Your task to perform on an android device: Go to wifi settings Image 0: 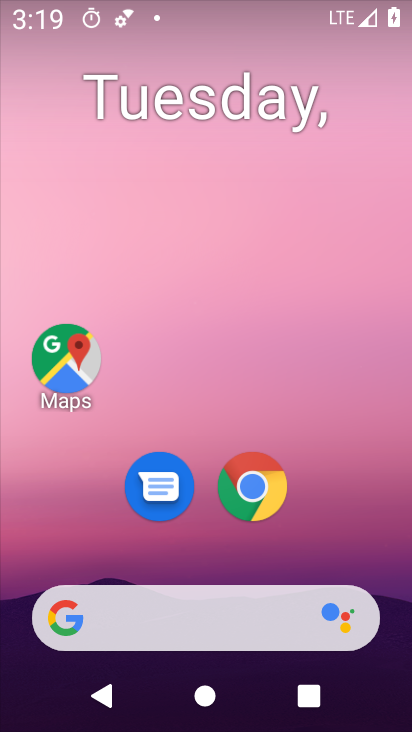
Step 0: press home button
Your task to perform on an android device: Go to wifi settings Image 1: 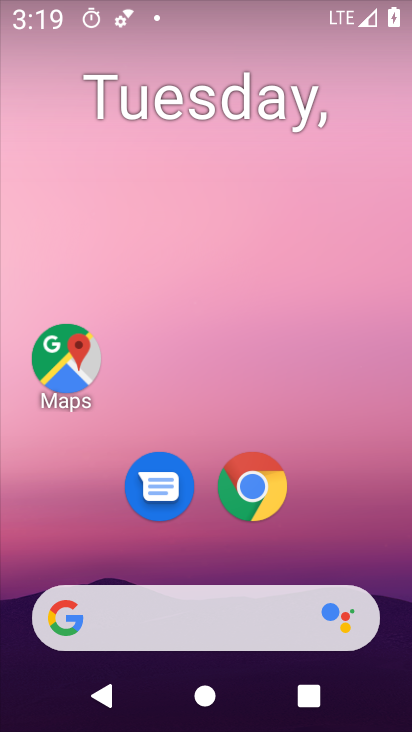
Step 1: drag from (346, 527) to (348, 44)
Your task to perform on an android device: Go to wifi settings Image 2: 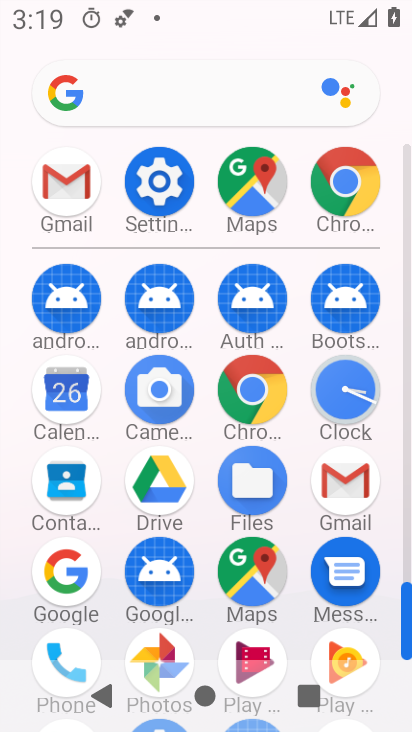
Step 2: click (152, 192)
Your task to perform on an android device: Go to wifi settings Image 3: 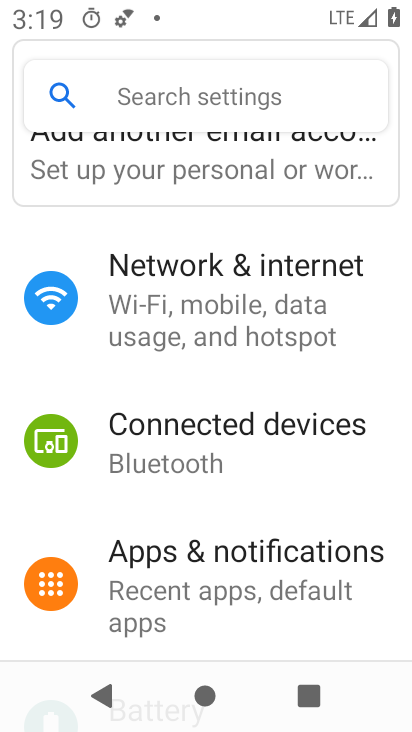
Step 3: drag from (366, 512) to (366, 421)
Your task to perform on an android device: Go to wifi settings Image 4: 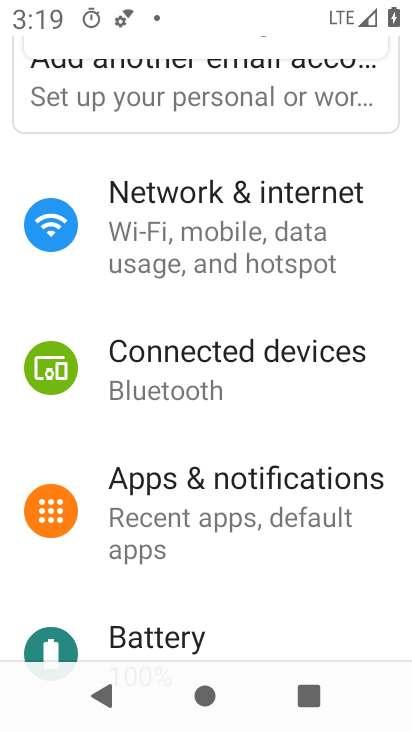
Step 4: drag from (352, 568) to (347, 418)
Your task to perform on an android device: Go to wifi settings Image 5: 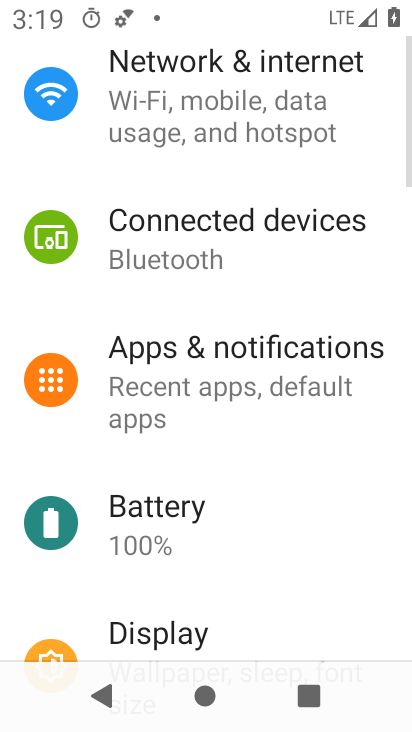
Step 5: drag from (331, 512) to (325, 393)
Your task to perform on an android device: Go to wifi settings Image 6: 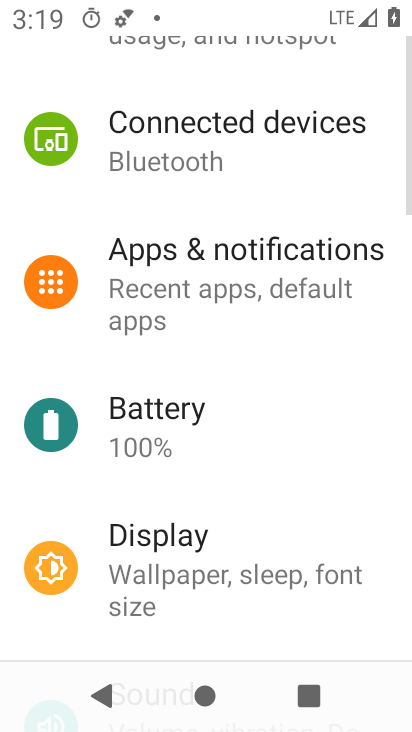
Step 6: drag from (324, 516) to (324, 399)
Your task to perform on an android device: Go to wifi settings Image 7: 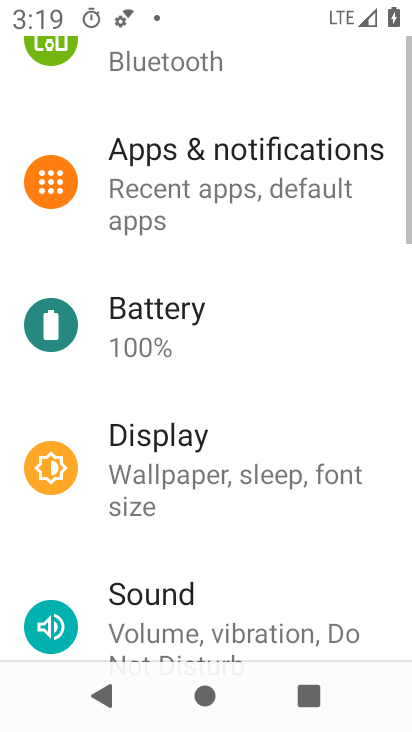
Step 7: drag from (315, 538) to (316, 400)
Your task to perform on an android device: Go to wifi settings Image 8: 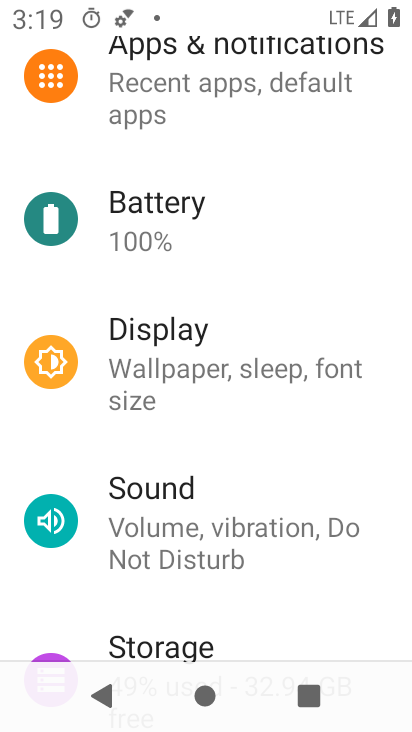
Step 8: drag from (331, 586) to (332, 456)
Your task to perform on an android device: Go to wifi settings Image 9: 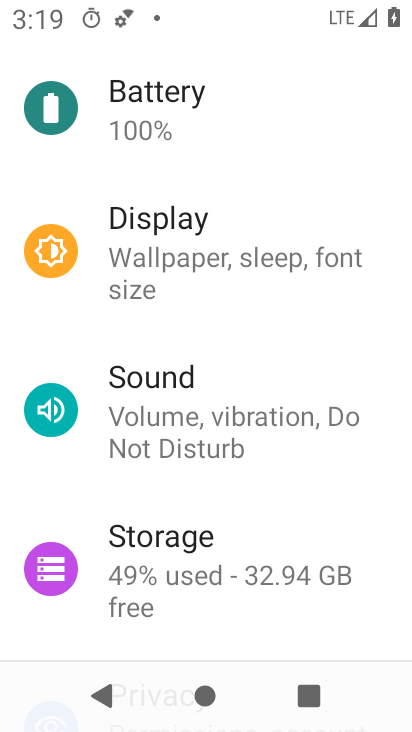
Step 9: drag from (333, 606) to (334, 474)
Your task to perform on an android device: Go to wifi settings Image 10: 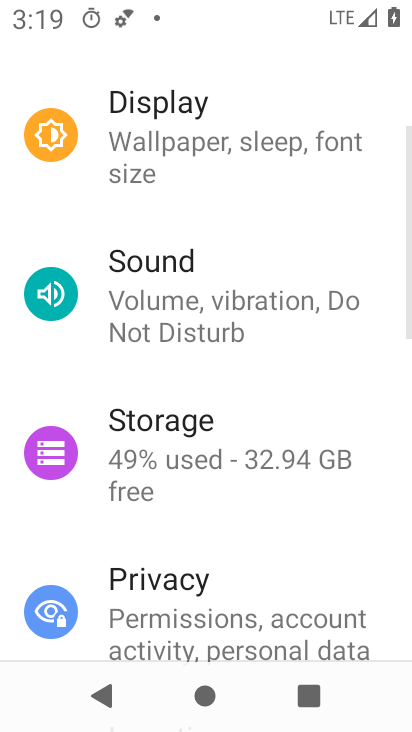
Step 10: drag from (343, 572) to (346, 463)
Your task to perform on an android device: Go to wifi settings Image 11: 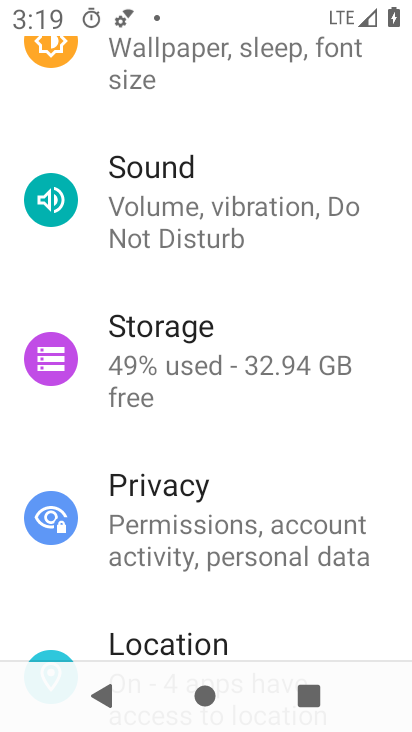
Step 11: drag from (349, 596) to (352, 448)
Your task to perform on an android device: Go to wifi settings Image 12: 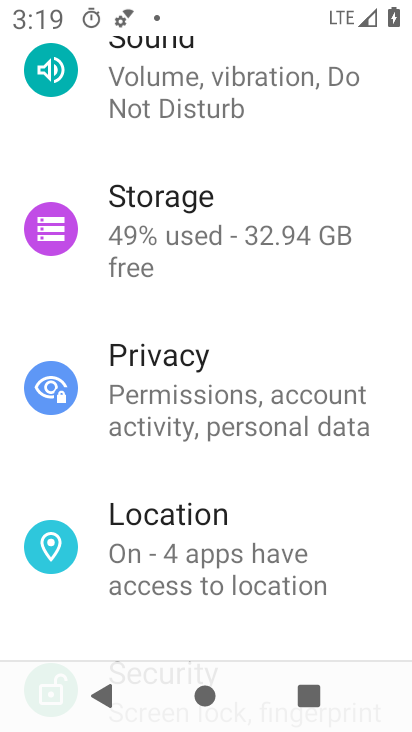
Step 12: drag from (355, 582) to (348, 469)
Your task to perform on an android device: Go to wifi settings Image 13: 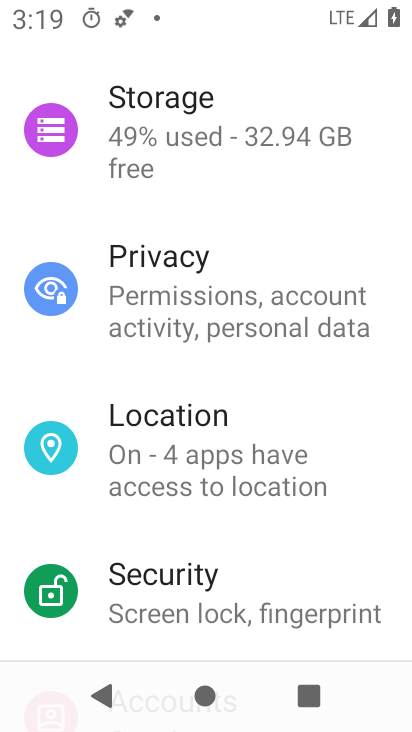
Step 13: drag from (335, 261) to (336, 377)
Your task to perform on an android device: Go to wifi settings Image 14: 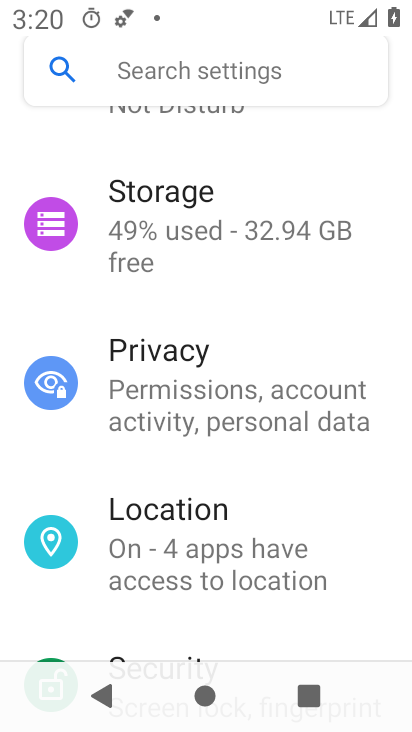
Step 14: drag from (357, 253) to (358, 362)
Your task to perform on an android device: Go to wifi settings Image 15: 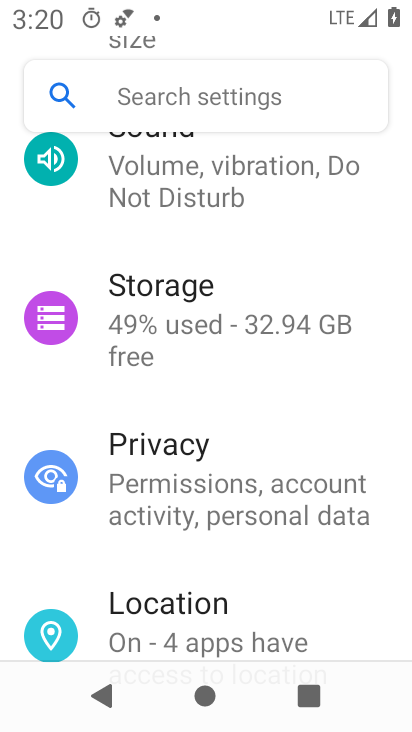
Step 15: drag from (367, 217) to (370, 341)
Your task to perform on an android device: Go to wifi settings Image 16: 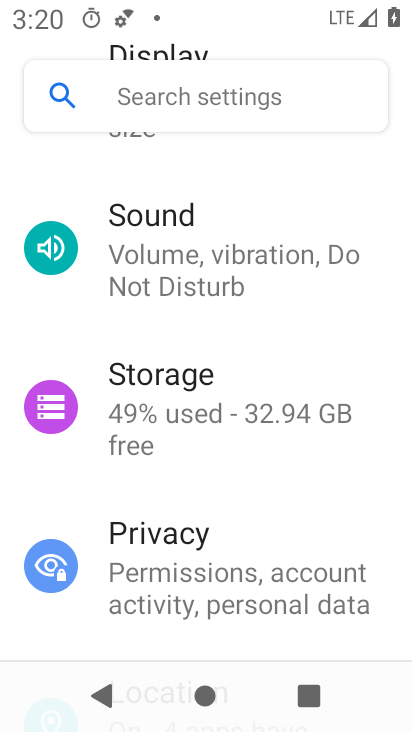
Step 16: drag from (363, 183) to (361, 322)
Your task to perform on an android device: Go to wifi settings Image 17: 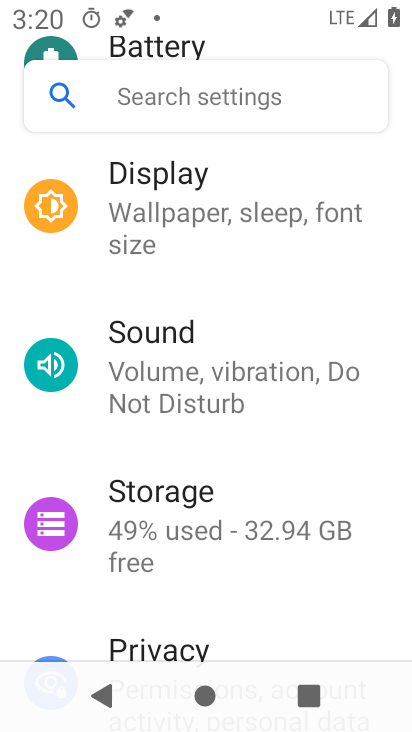
Step 17: drag from (369, 175) to (371, 304)
Your task to perform on an android device: Go to wifi settings Image 18: 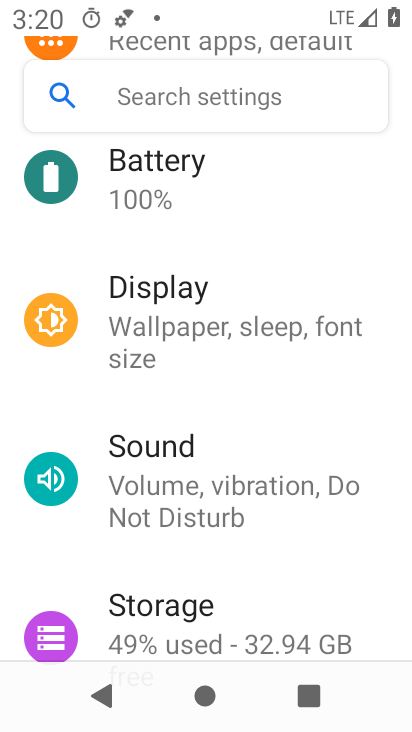
Step 18: drag from (351, 198) to (351, 358)
Your task to perform on an android device: Go to wifi settings Image 19: 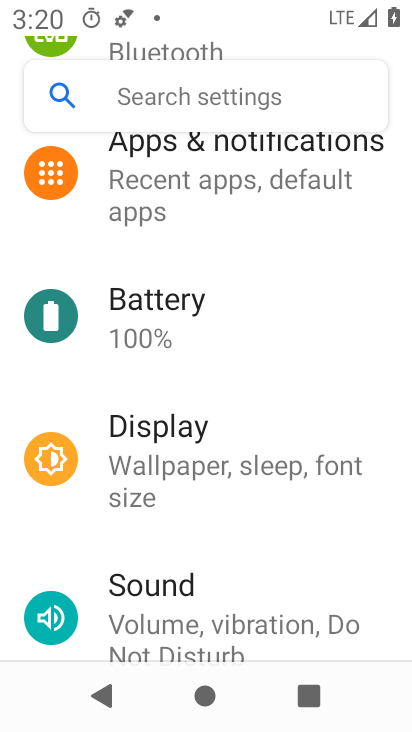
Step 19: drag from (331, 197) to (335, 394)
Your task to perform on an android device: Go to wifi settings Image 20: 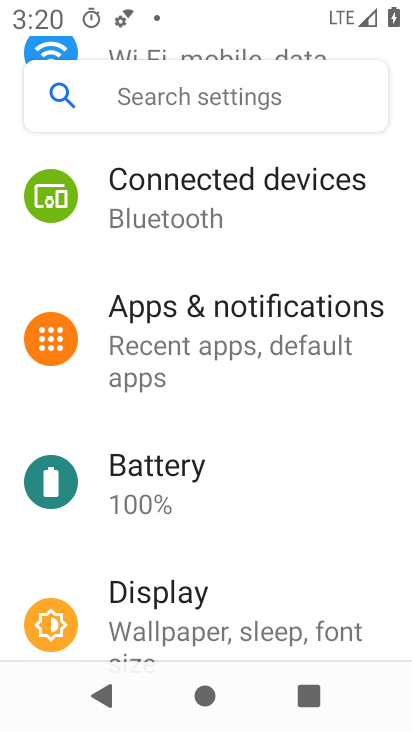
Step 20: drag from (319, 172) to (324, 411)
Your task to perform on an android device: Go to wifi settings Image 21: 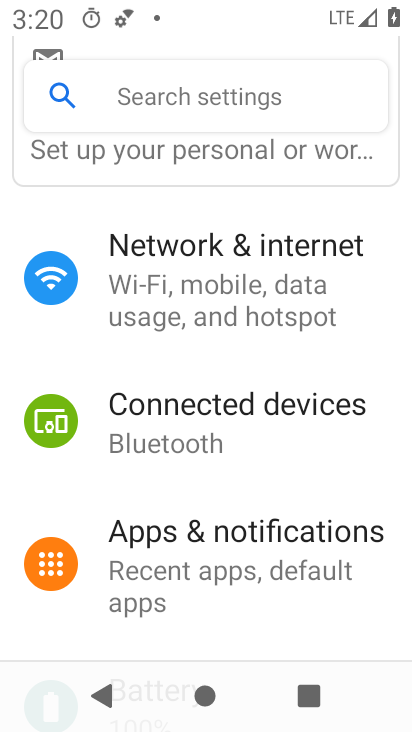
Step 21: click (261, 274)
Your task to perform on an android device: Go to wifi settings Image 22: 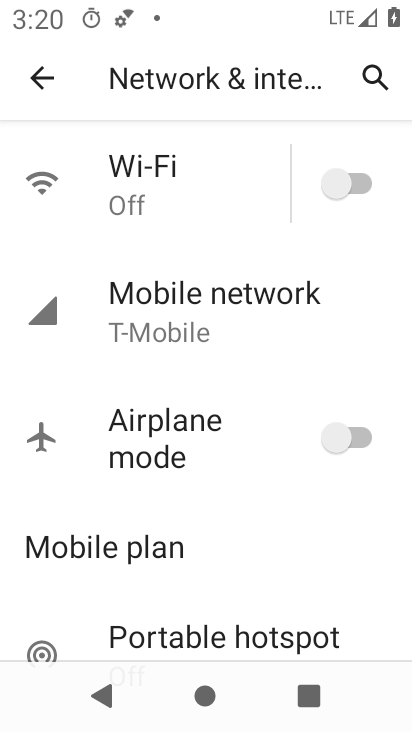
Step 22: click (149, 192)
Your task to perform on an android device: Go to wifi settings Image 23: 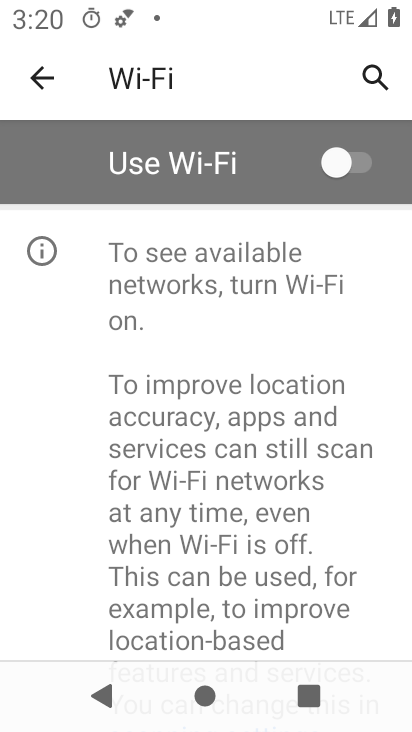
Step 23: task complete